Your task to perform on an android device: turn off location history Image 0: 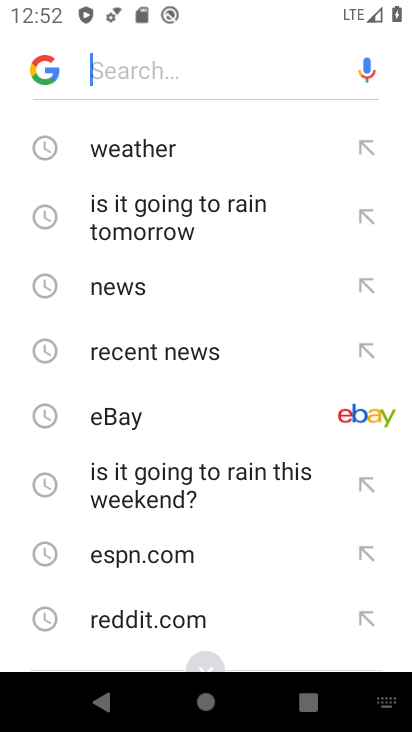
Step 0: press home button
Your task to perform on an android device: turn off location history Image 1: 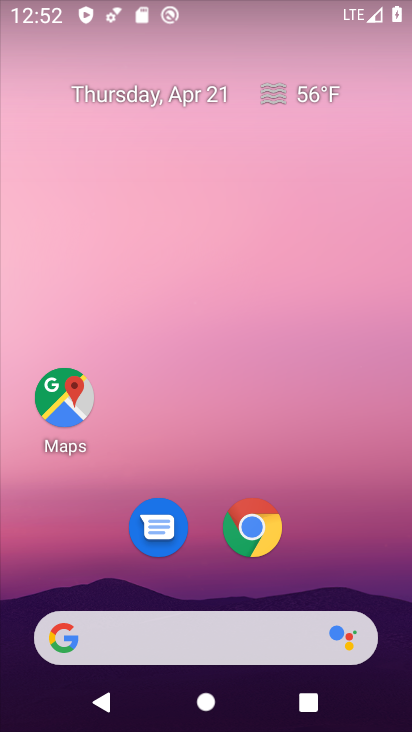
Step 1: drag from (201, 532) to (268, 138)
Your task to perform on an android device: turn off location history Image 2: 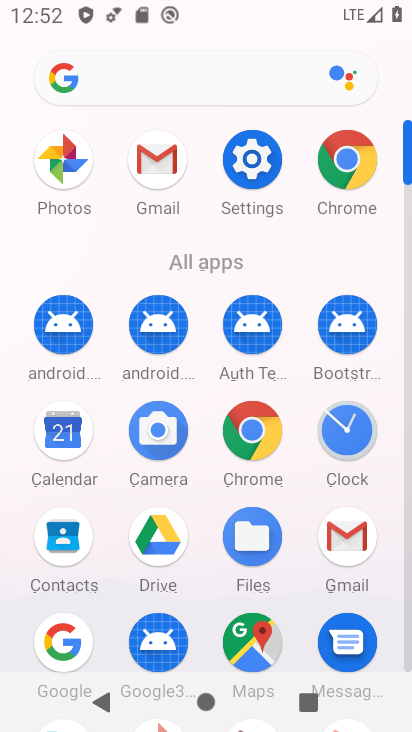
Step 2: click (268, 138)
Your task to perform on an android device: turn off location history Image 3: 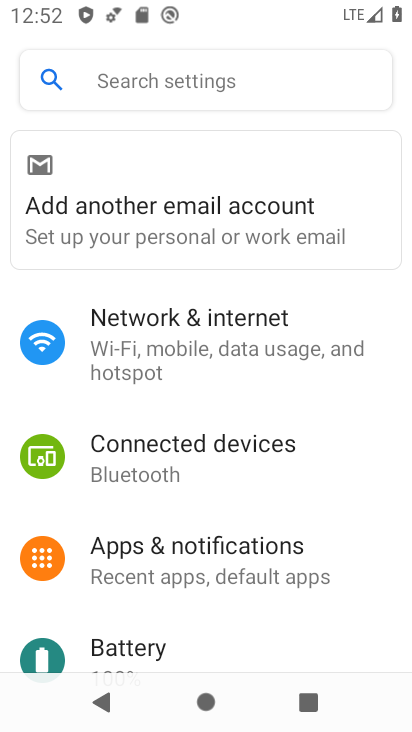
Step 3: drag from (169, 592) to (207, 355)
Your task to perform on an android device: turn off location history Image 4: 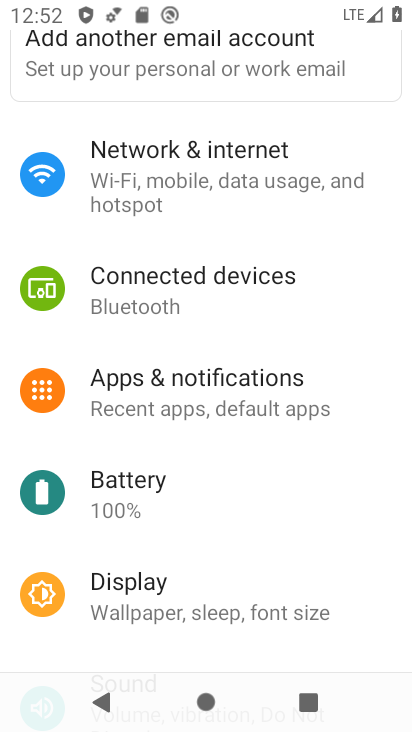
Step 4: drag from (204, 590) to (256, 315)
Your task to perform on an android device: turn off location history Image 5: 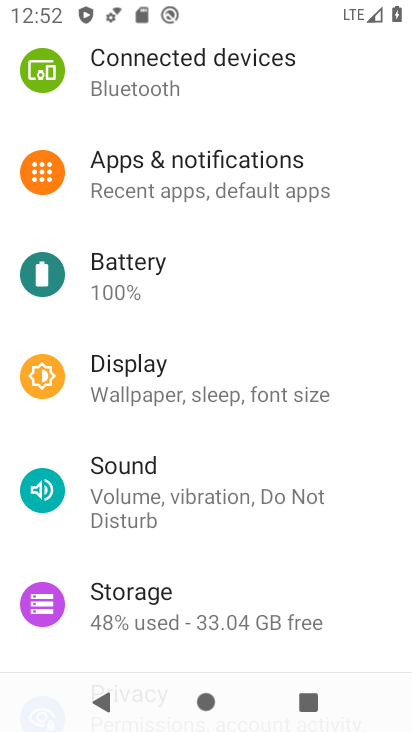
Step 5: drag from (229, 474) to (265, 245)
Your task to perform on an android device: turn off location history Image 6: 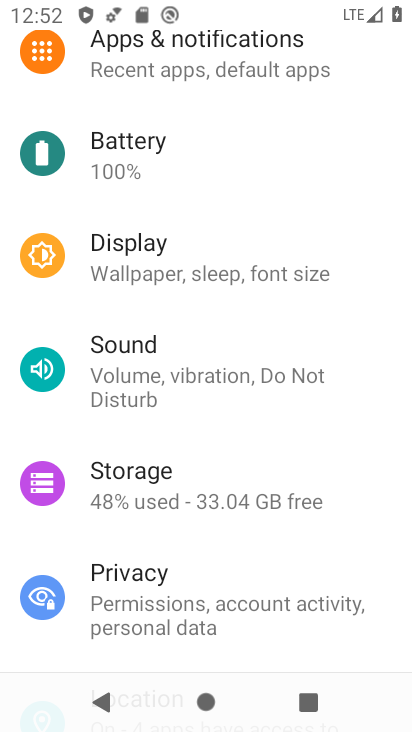
Step 6: drag from (228, 497) to (244, 217)
Your task to perform on an android device: turn off location history Image 7: 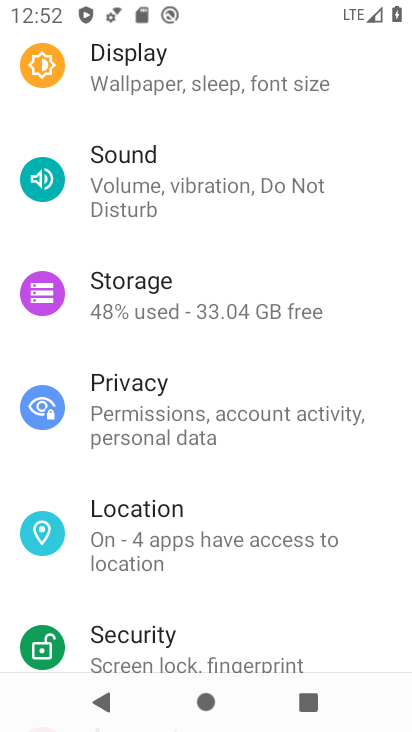
Step 7: click (206, 533)
Your task to perform on an android device: turn off location history Image 8: 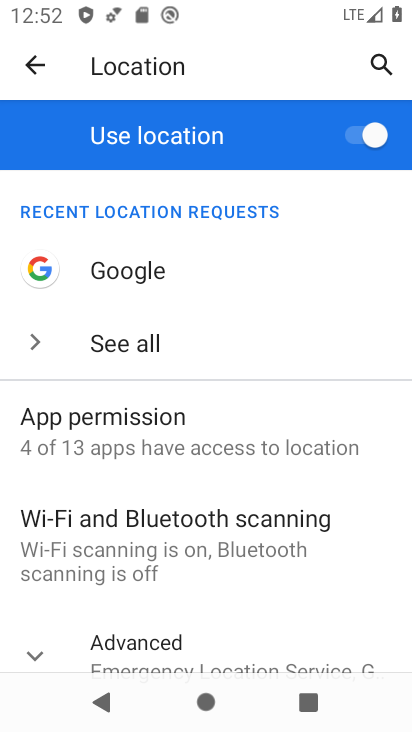
Step 8: drag from (205, 638) to (255, 351)
Your task to perform on an android device: turn off location history Image 9: 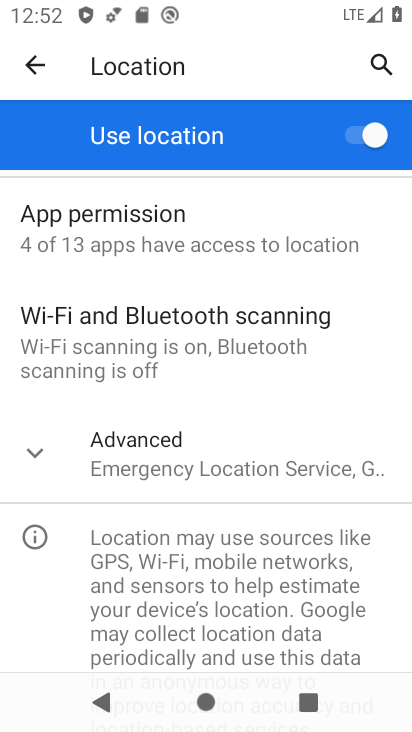
Step 9: click (205, 460)
Your task to perform on an android device: turn off location history Image 10: 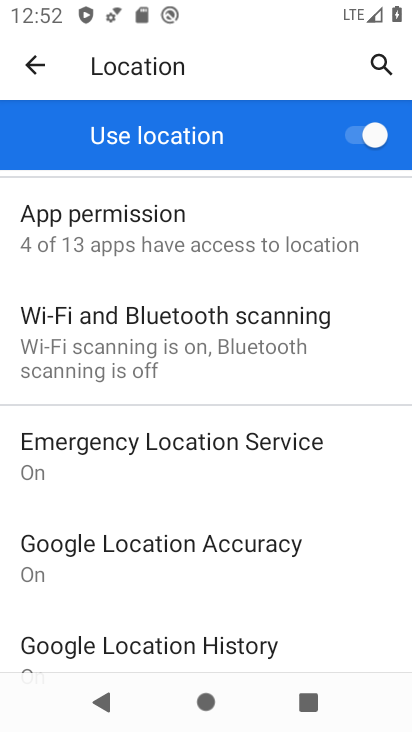
Step 10: click (200, 648)
Your task to perform on an android device: turn off location history Image 11: 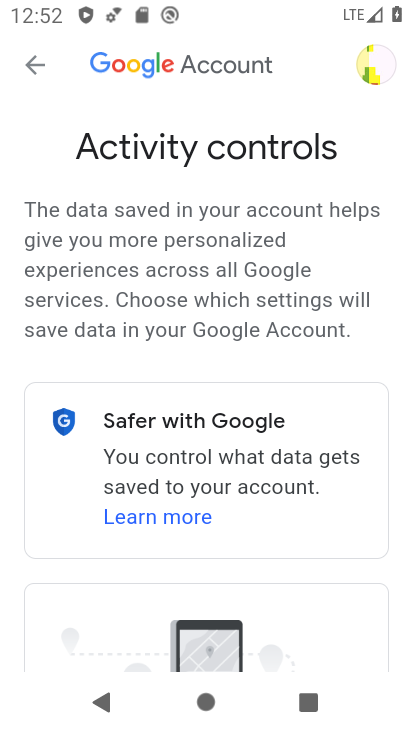
Step 11: task complete